Your task to perform on an android device: delete location history Image 0: 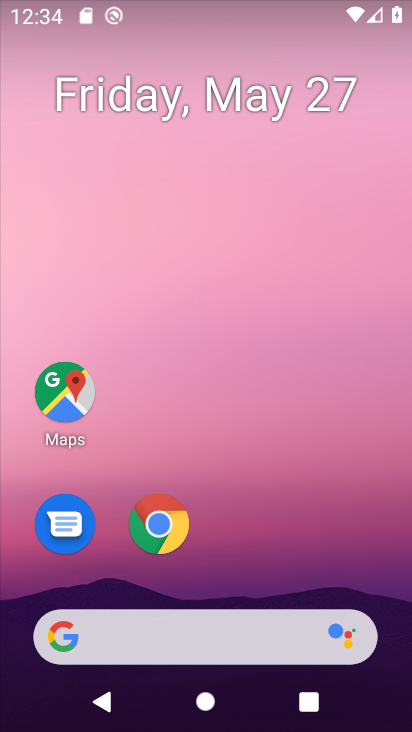
Step 0: drag from (249, 563) to (315, 40)
Your task to perform on an android device: delete location history Image 1: 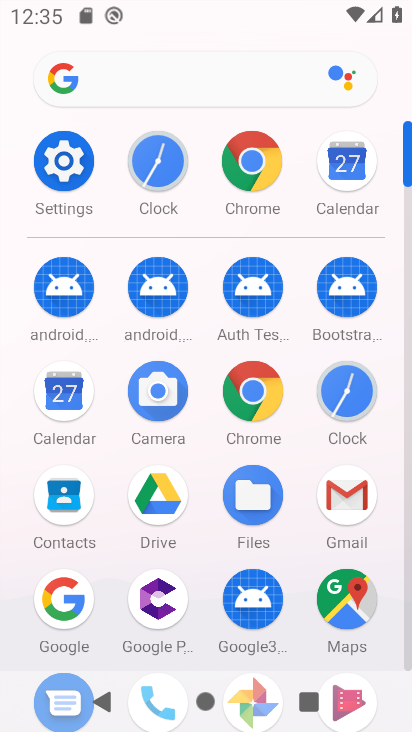
Step 1: click (353, 599)
Your task to perform on an android device: delete location history Image 2: 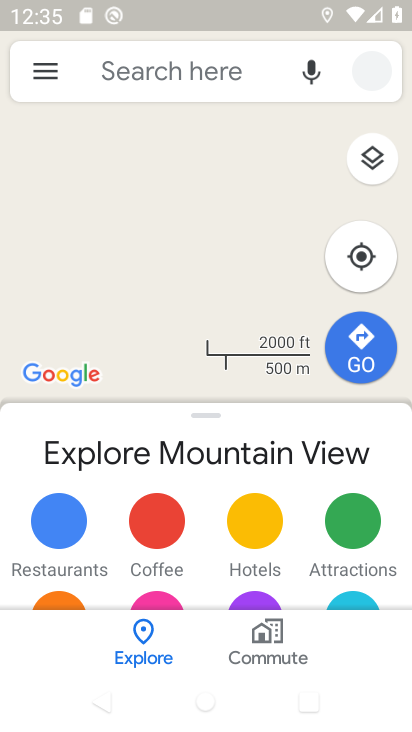
Step 2: click (48, 72)
Your task to perform on an android device: delete location history Image 3: 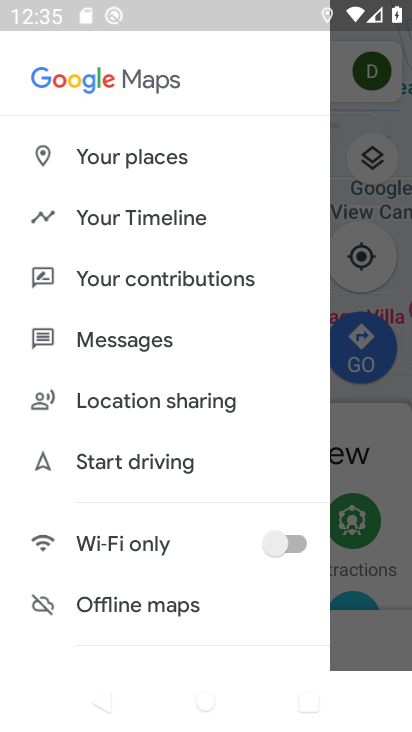
Step 3: click (139, 209)
Your task to perform on an android device: delete location history Image 4: 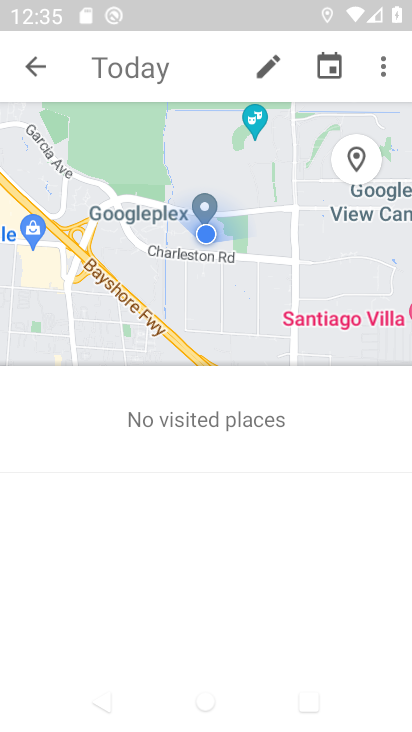
Step 4: click (384, 70)
Your task to perform on an android device: delete location history Image 5: 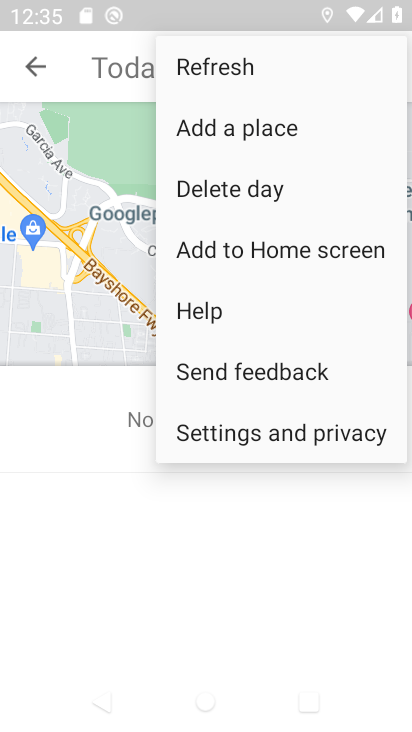
Step 5: click (338, 437)
Your task to perform on an android device: delete location history Image 6: 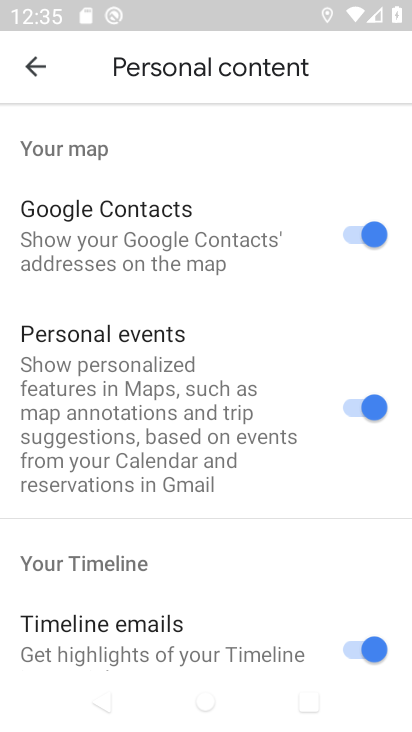
Step 6: drag from (210, 533) to (217, 87)
Your task to perform on an android device: delete location history Image 7: 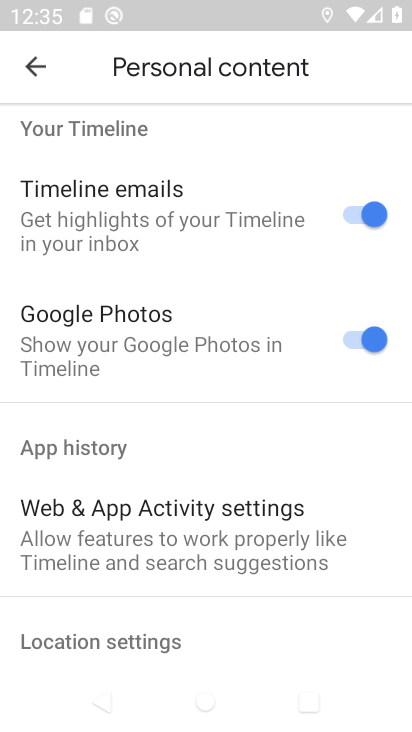
Step 7: drag from (210, 489) to (214, 188)
Your task to perform on an android device: delete location history Image 8: 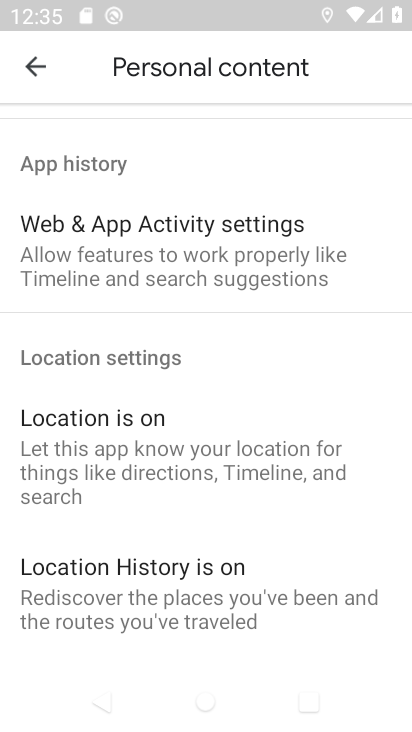
Step 8: drag from (209, 479) to (205, 211)
Your task to perform on an android device: delete location history Image 9: 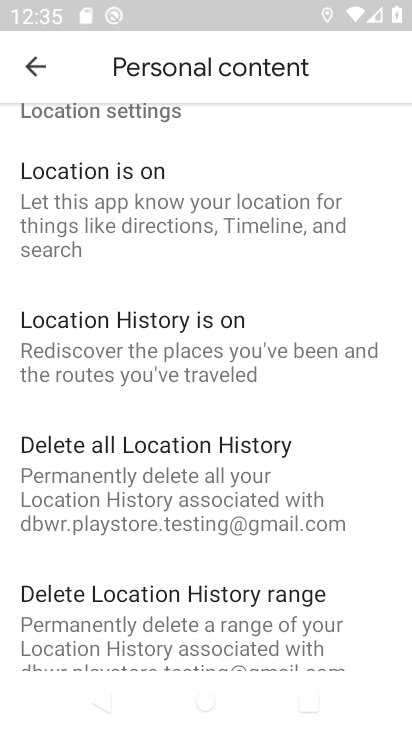
Step 9: click (197, 490)
Your task to perform on an android device: delete location history Image 10: 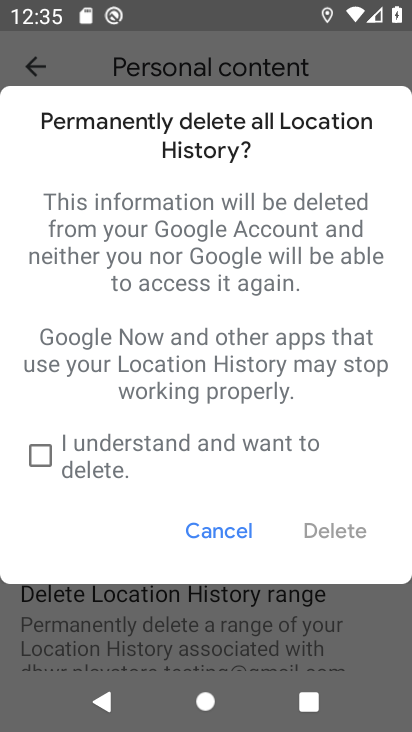
Step 10: click (40, 453)
Your task to perform on an android device: delete location history Image 11: 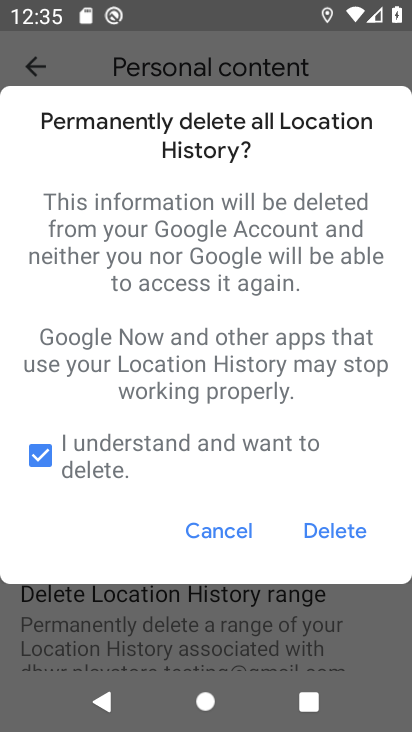
Step 11: click (335, 529)
Your task to perform on an android device: delete location history Image 12: 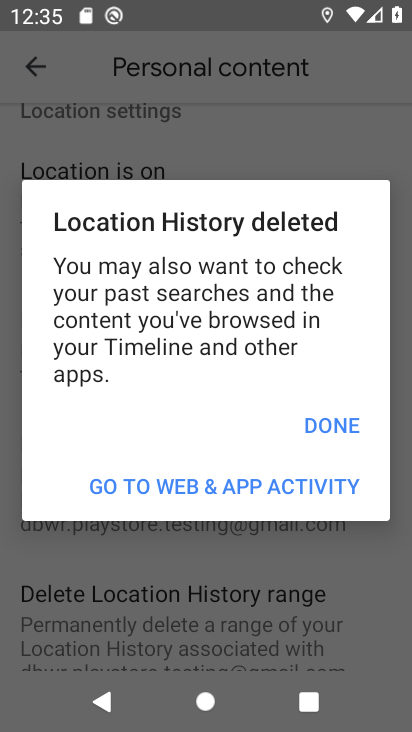
Step 12: click (338, 422)
Your task to perform on an android device: delete location history Image 13: 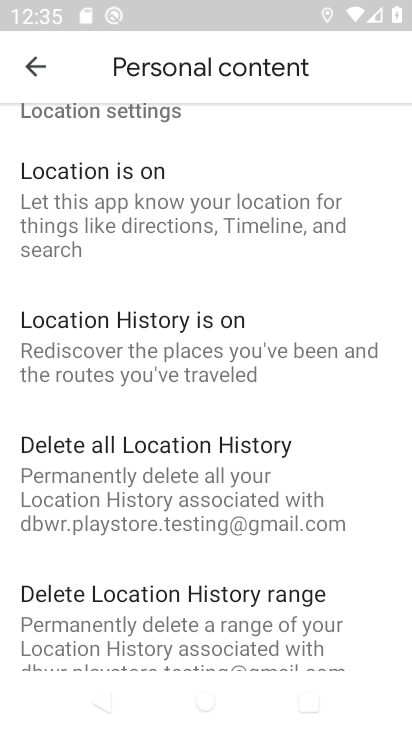
Step 13: task complete